Your task to perform on an android device: move a message to another label in the gmail app Image 0: 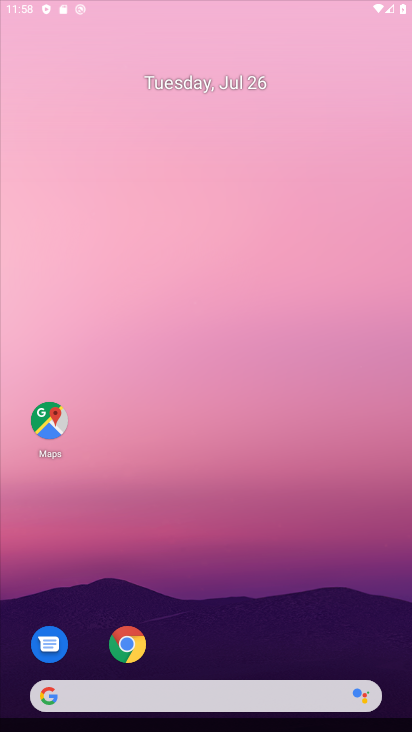
Step 0: drag from (201, 704) to (240, 156)
Your task to perform on an android device: move a message to another label in the gmail app Image 1: 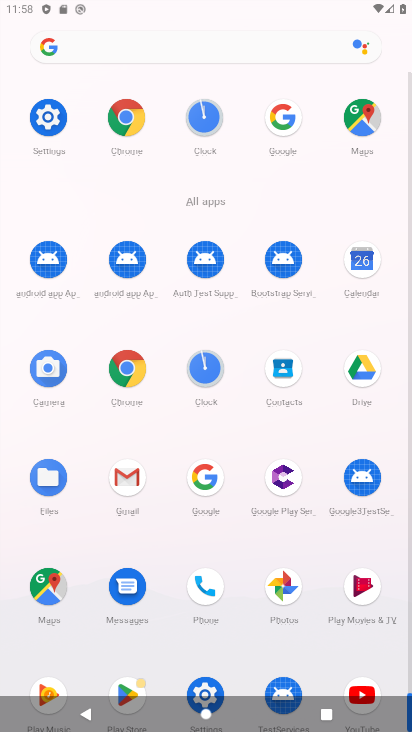
Step 1: drag from (180, 484) to (171, 89)
Your task to perform on an android device: move a message to another label in the gmail app Image 2: 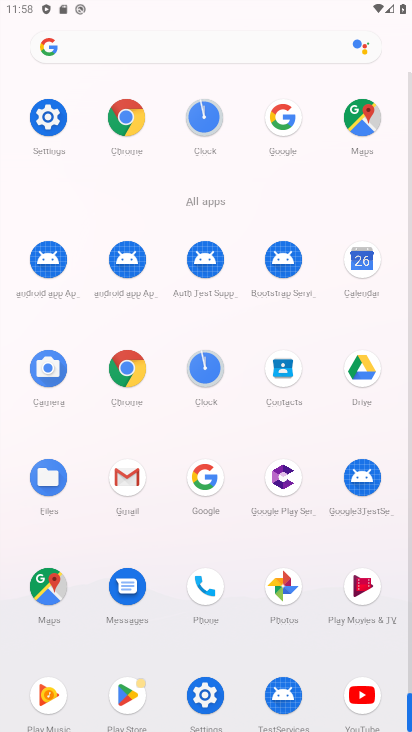
Step 2: click (112, 481)
Your task to perform on an android device: move a message to another label in the gmail app Image 3: 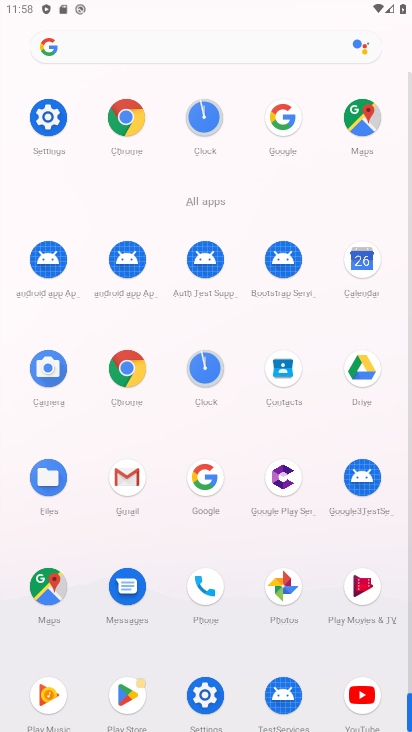
Step 3: click (117, 480)
Your task to perform on an android device: move a message to another label in the gmail app Image 4: 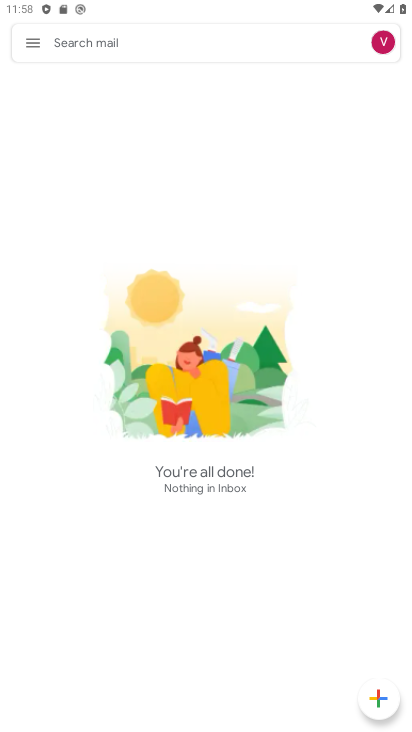
Step 4: click (33, 43)
Your task to perform on an android device: move a message to another label in the gmail app Image 5: 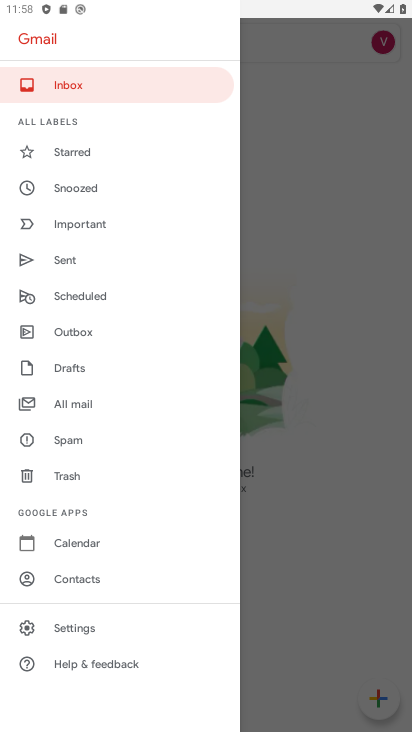
Step 5: click (67, 407)
Your task to perform on an android device: move a message to another label in the gmail app Image 6: 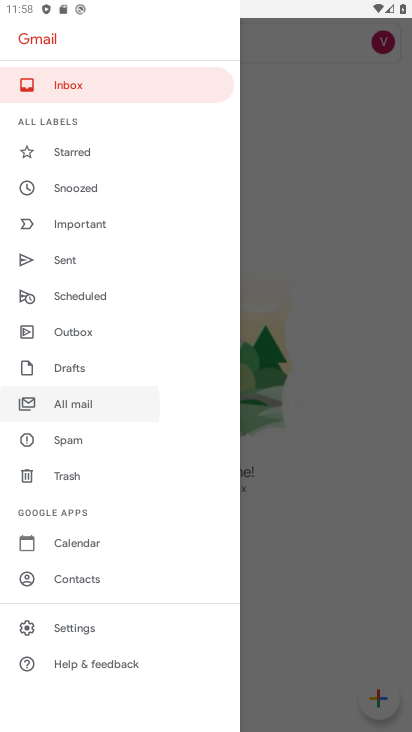
Step 6: click (67, 407)
Your task to perform on an android device: move a message to another label in the gmail app Image 7: 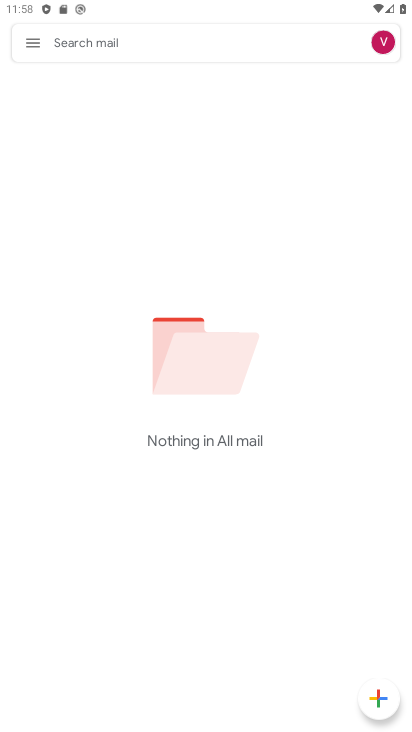
Step 7: task complete